Your task to perform on an android device: When is my next meeting? Image 0: 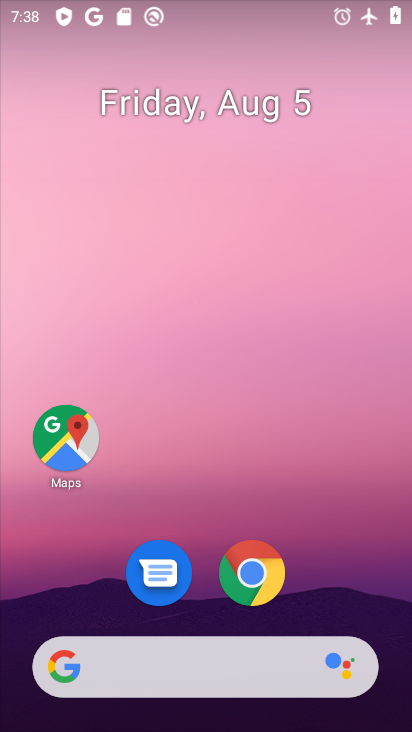
Step 0: drag from (327, 558) to (322, 0)
Your task to perform on an android device: When is my next meeting? Image 1: 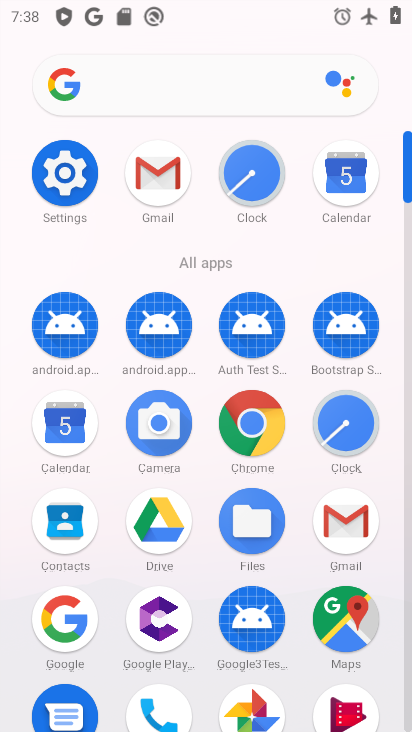
Step 1: click (349, 178)
Your task to perform on an android device: When is my next meeting? Image 2: 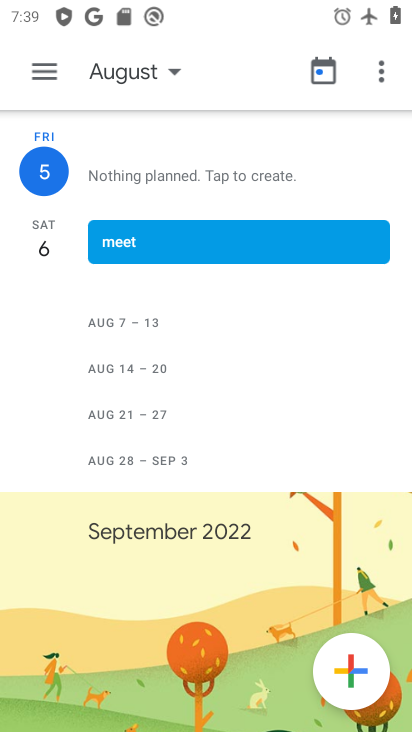
Step 2: task complete